Your task to perform on an android device: Go to Yahoo.com Image 0: 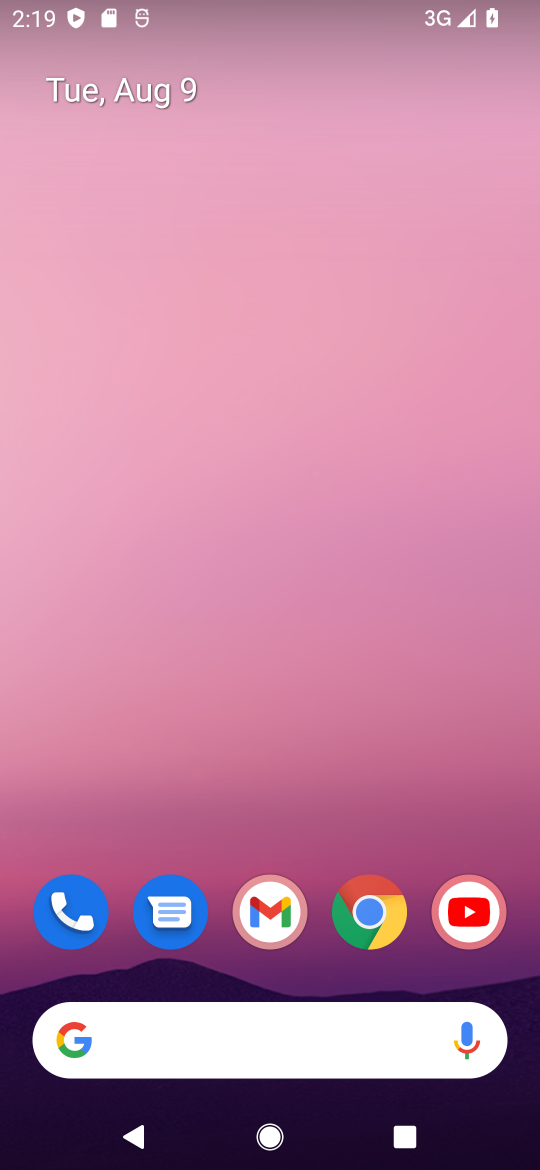
Step 0: drag from (281, 786) to (331, 48)
Your task to perform on an android device: Go to Yahoo.com Image 1: 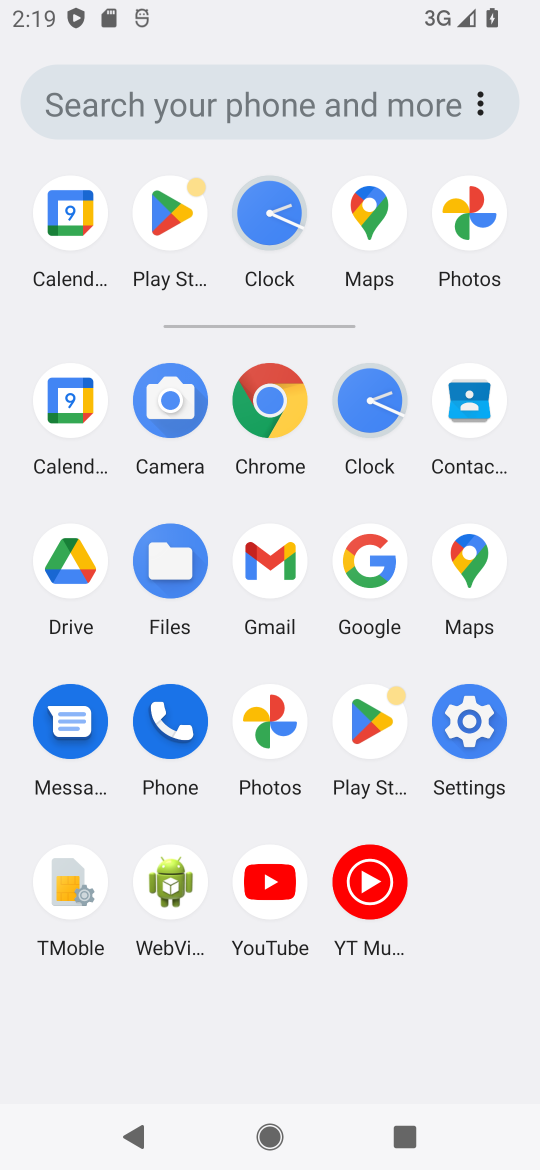
Step 1: click (270, 401)
Your task to perform on an android device: Go to Yahoo.com Image 2: 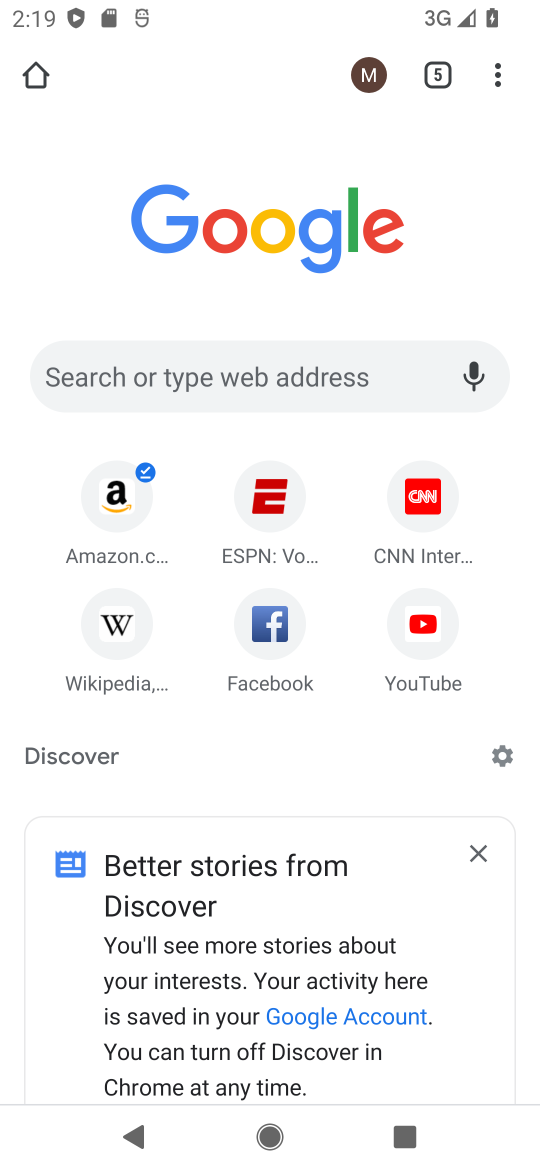
Step 2: click (193, 367)
Your task to perform on an android device: Go to Yahoo.com Image 3: 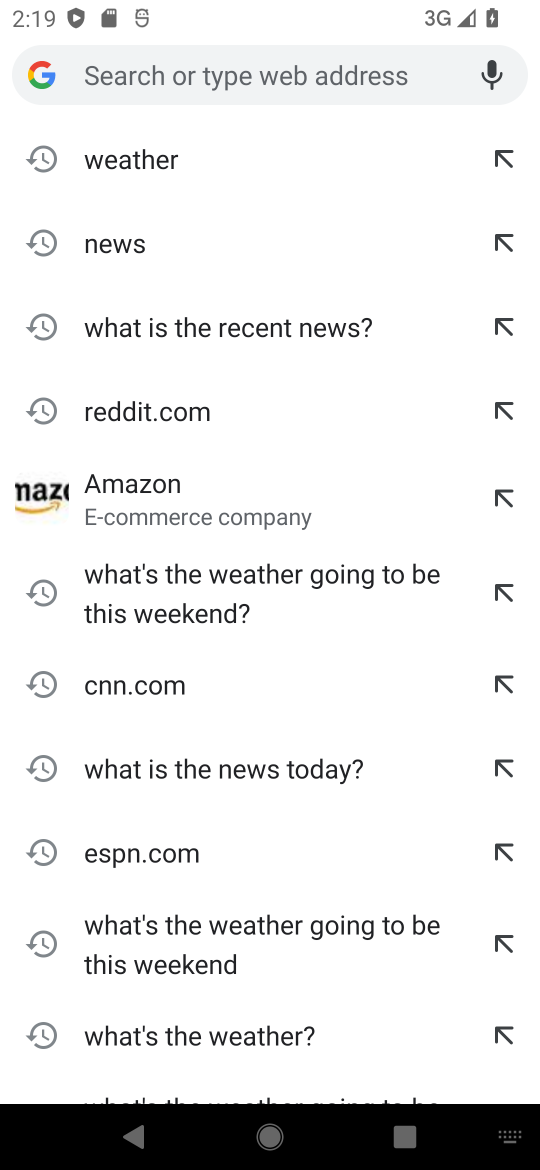
Step 3: type "yahoo.com"
Your task to perform on an android device: Go to Yahoo.com Image 4: 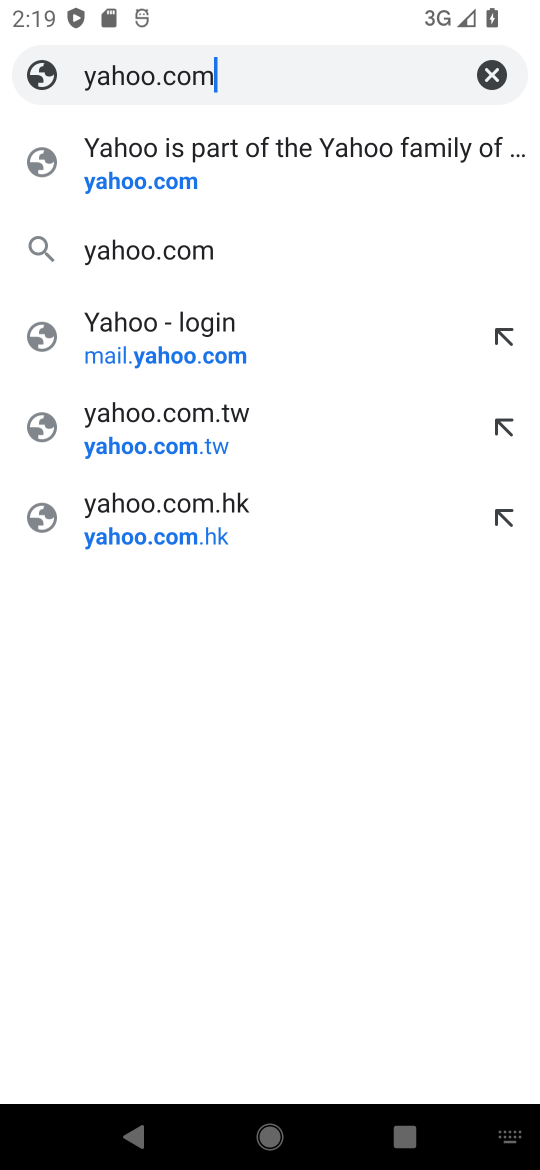
Step 4: click (158, 146)
Your task to perform on an android device: Go to Yahoo.com Image 5: 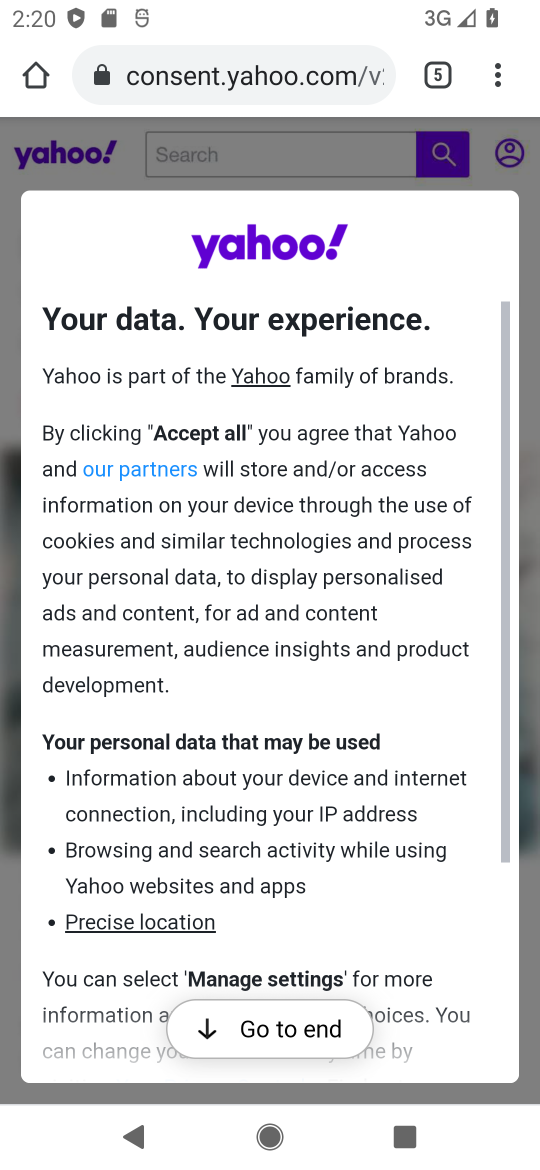
Step 5: click (271, 1040)
Your task to perform on an android device: Go to Yahoo.com Image 6: 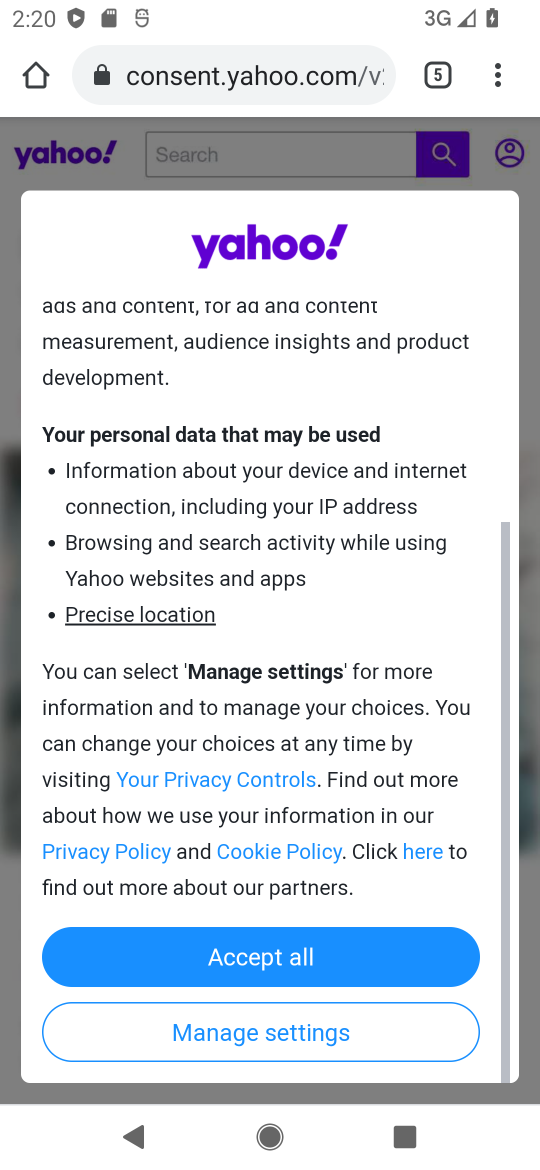
Step 6: click (284, 949)
Your task to perform on an android device: Go to Yahoo.com Image 7: 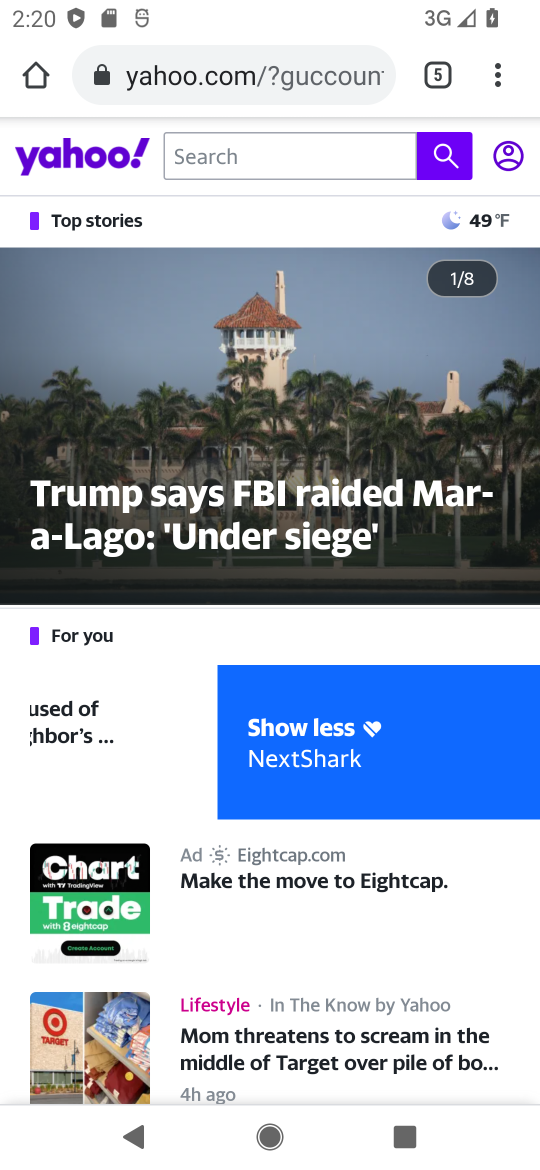
Step 7: task complete